Your task to perform on an android device: Open network settings Image 0: 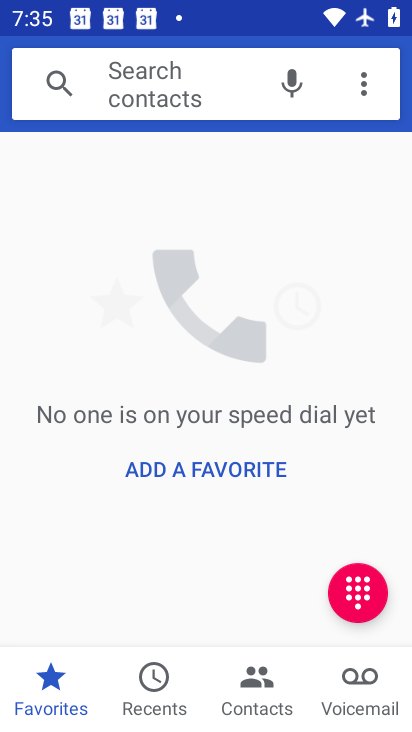
Step 0: press home button
Your task to perform on an android device: Open network settings Image 1: 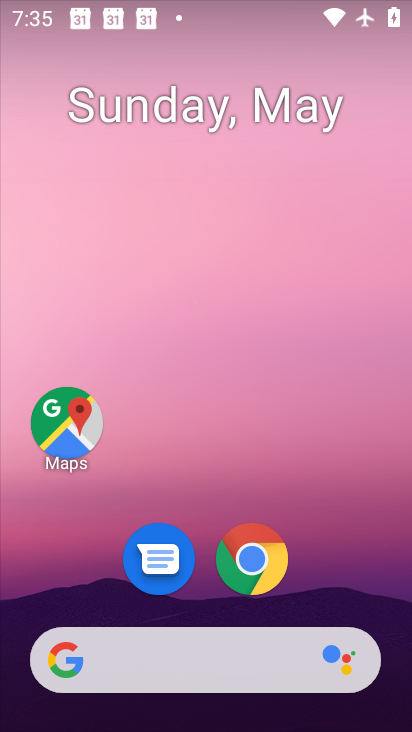
Step 1: drag from (231, 524) to (264, 191)
Your task to perform on an android device: Open network settings Image 2: 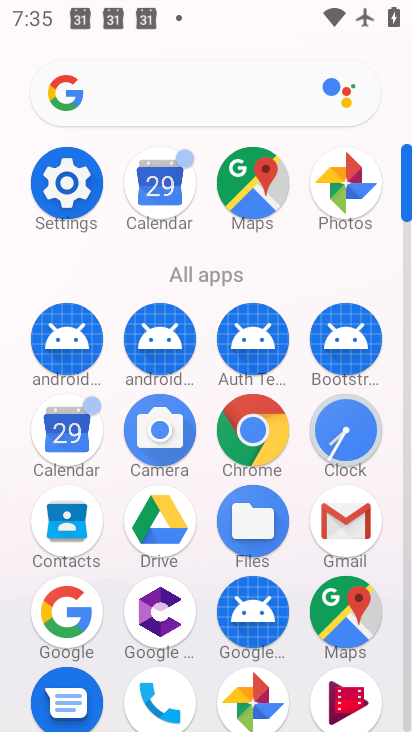
Step 2: click (70, 184)
Your task to perform on an android device: Open network settings Image 3: 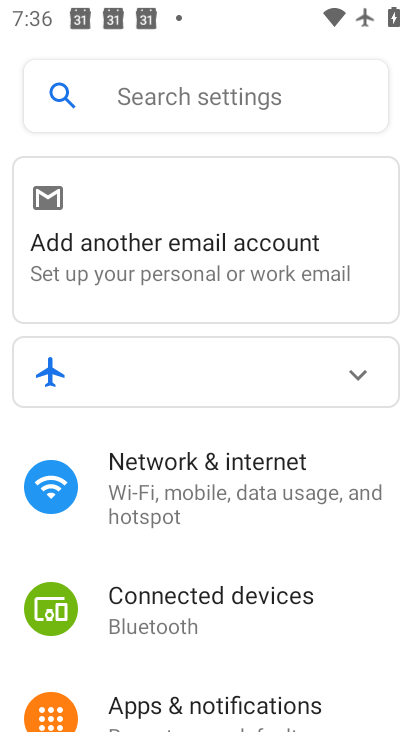
Step 3: click (200, 482)
Your task to perform on an android device: Open network settings Image 4: 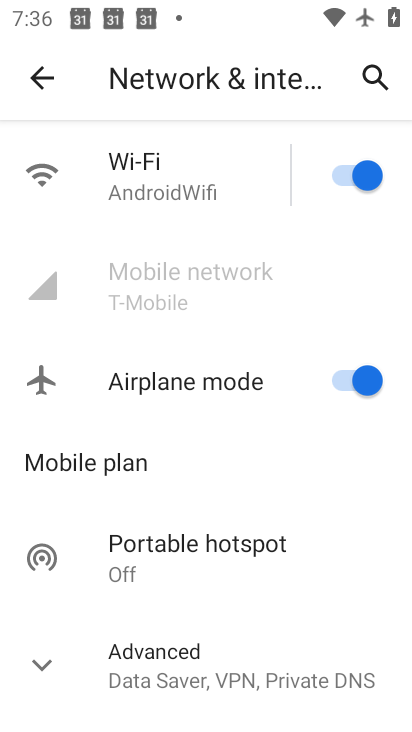
Step 4: task complete